Your task to perform on an android device: find photos in the google photos app Image 0: 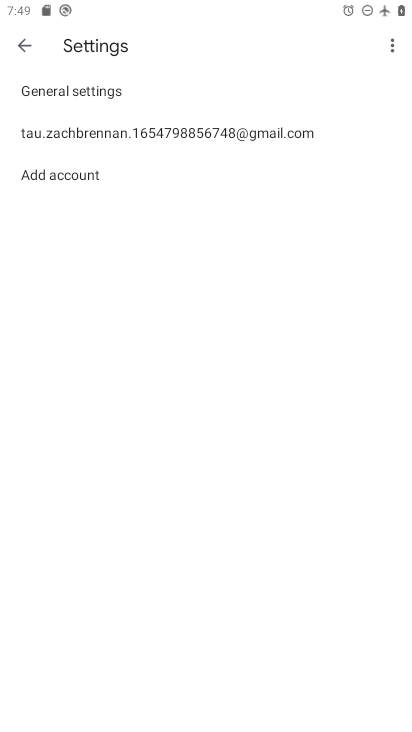
Step 0: press home button
Your task to perform on an android device: find photos in the google photos app Image 1: 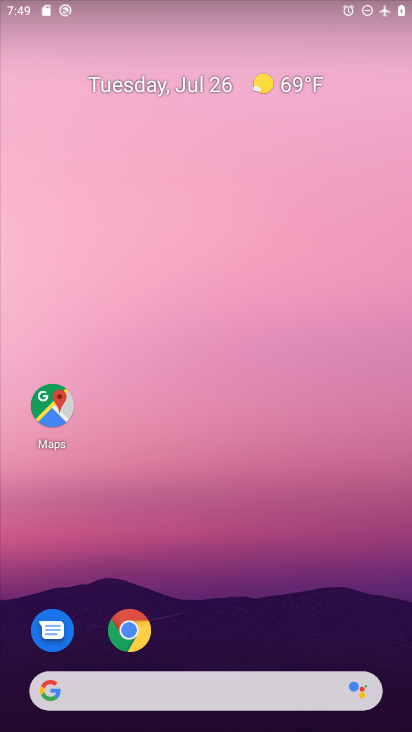
Step 1: drag from (253, 622) to (214, 2)
Your task to perform on an android device: find photos in the google photos app Image 2: 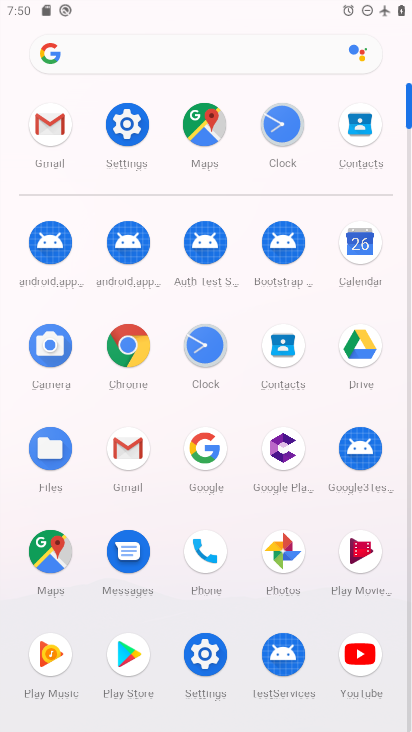
Step 2: click (293, 554)
Your task to perform on an android device: find photos in the google photos app Image 3: 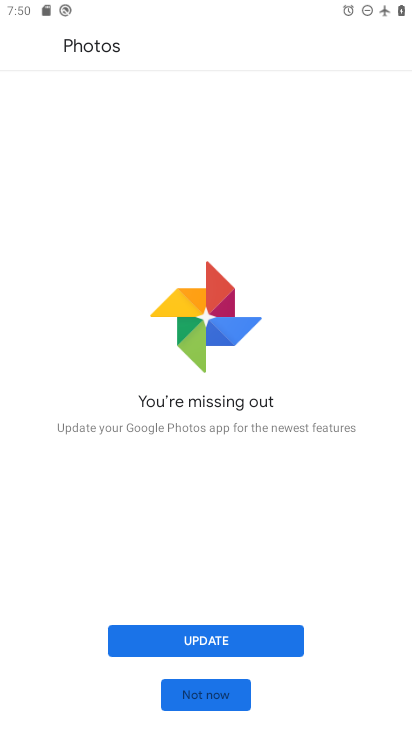
Step 3: click (279, 637)
Your task to perform on an android device: find photos in the google photos app Image 4: 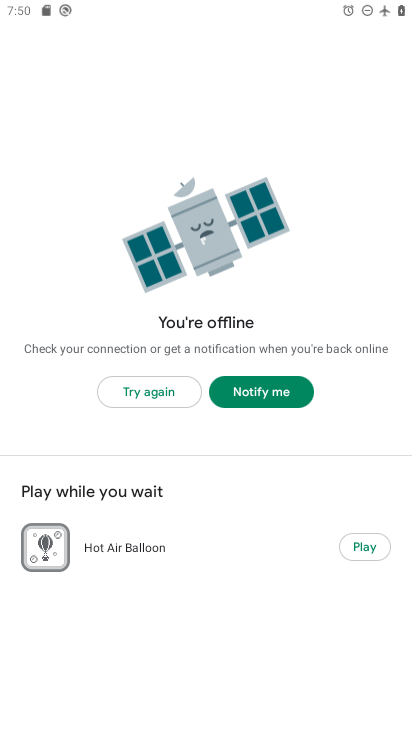
Step 4: task complete